Your task to perform on an android device: Clear the shopping cart on bestbuy.com. Search for lenovo thinkpad on bestbuy.com, select the first entry, add it to the cart, then select checkout. Image 0: 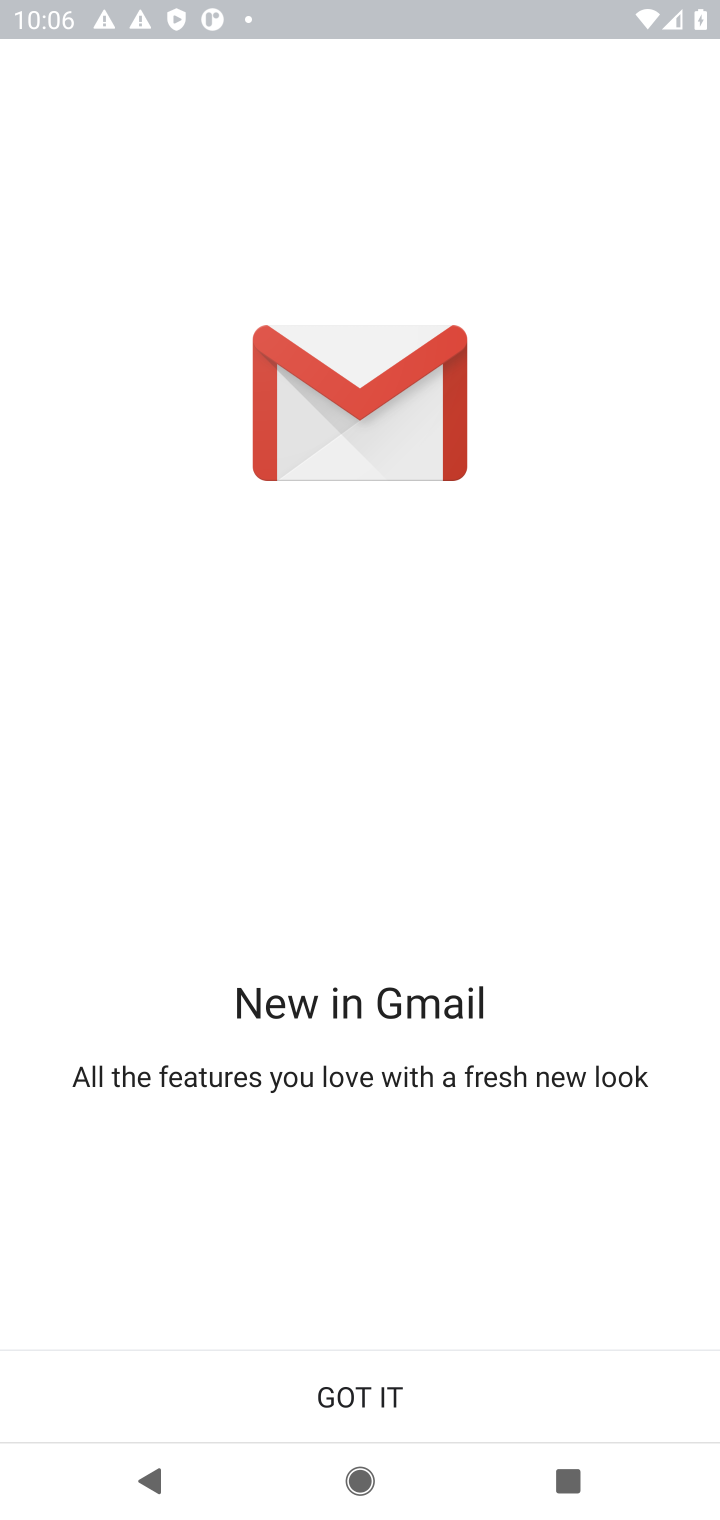
Step 0: press home button
Your task to perform on an android device: Clear the shopping cart on bestbuy.com. Search for lenovo thinkpad on bestbuy.com, select the first entry, add it to the cart, then select checkout. Image 1: 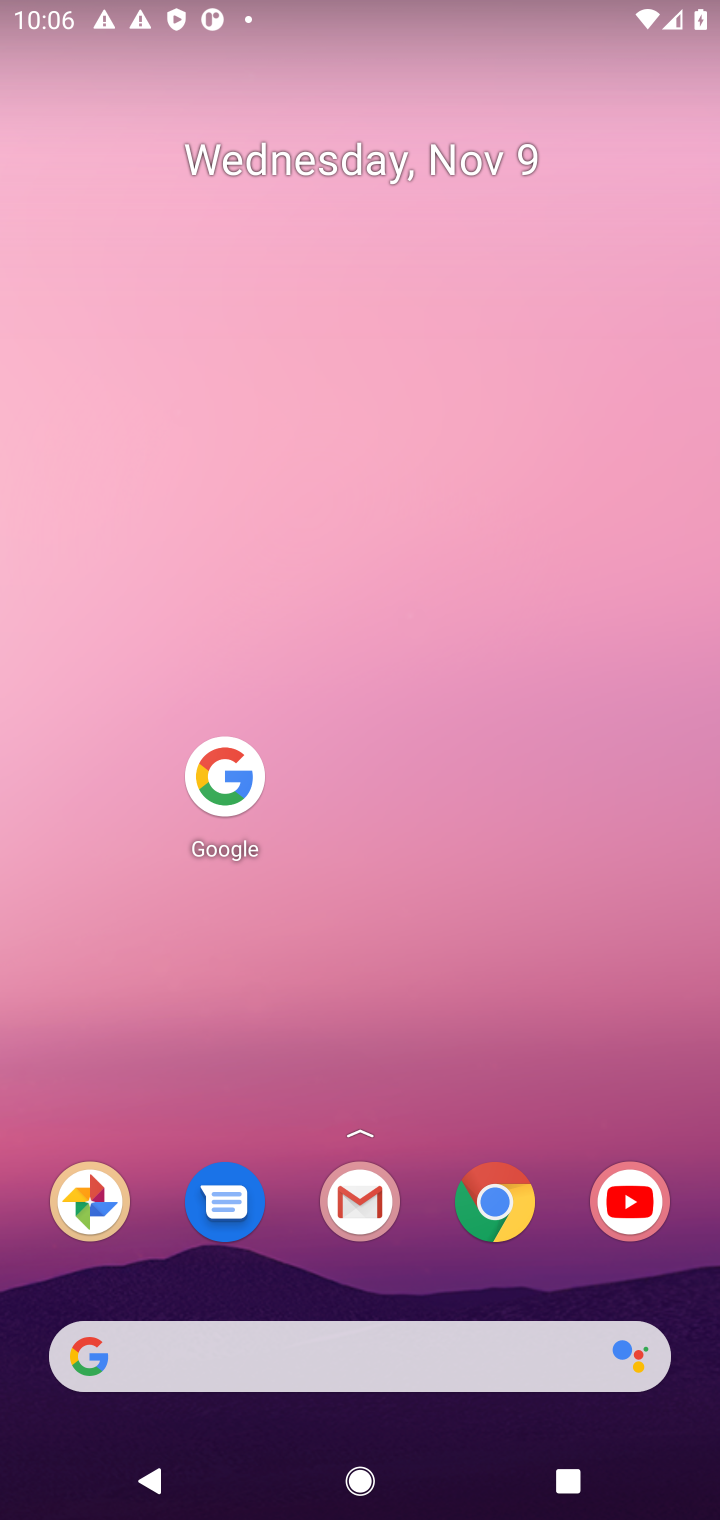
Step 1: click (231, 783)
Your task to perform on an android device: Clear the shopping cart on bestbuy.com. Search for lenovo thinkpad on bestbuy.com, select the first entry, add it to the cart, then select checkout. Image 2: 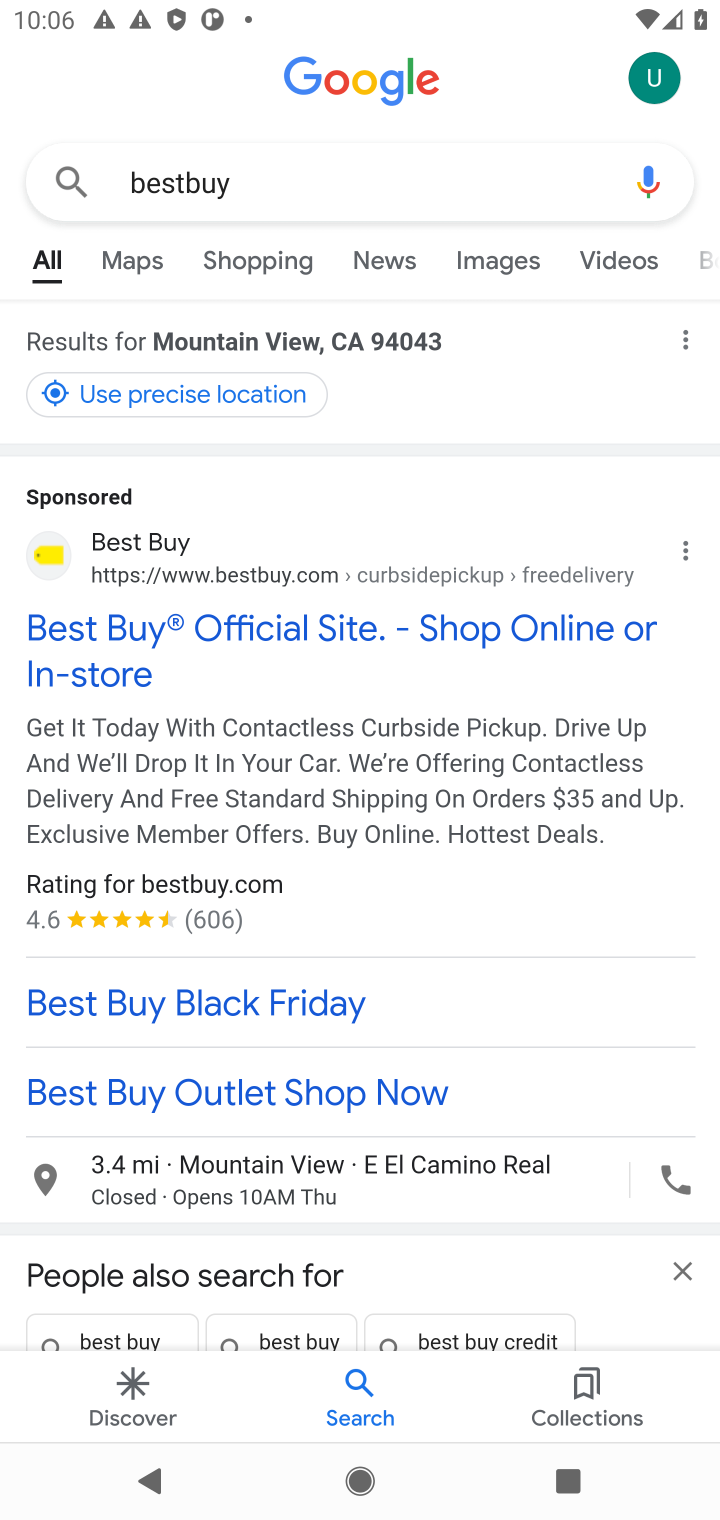
Step 2: click (298, 189)
Your task to perform on an android device: Clear the shopping cart on bestbuy.com. Search for lenovo thinkpad on bestbuy.com, select the first entry, add it to the cart, then select checkout. Image 3: 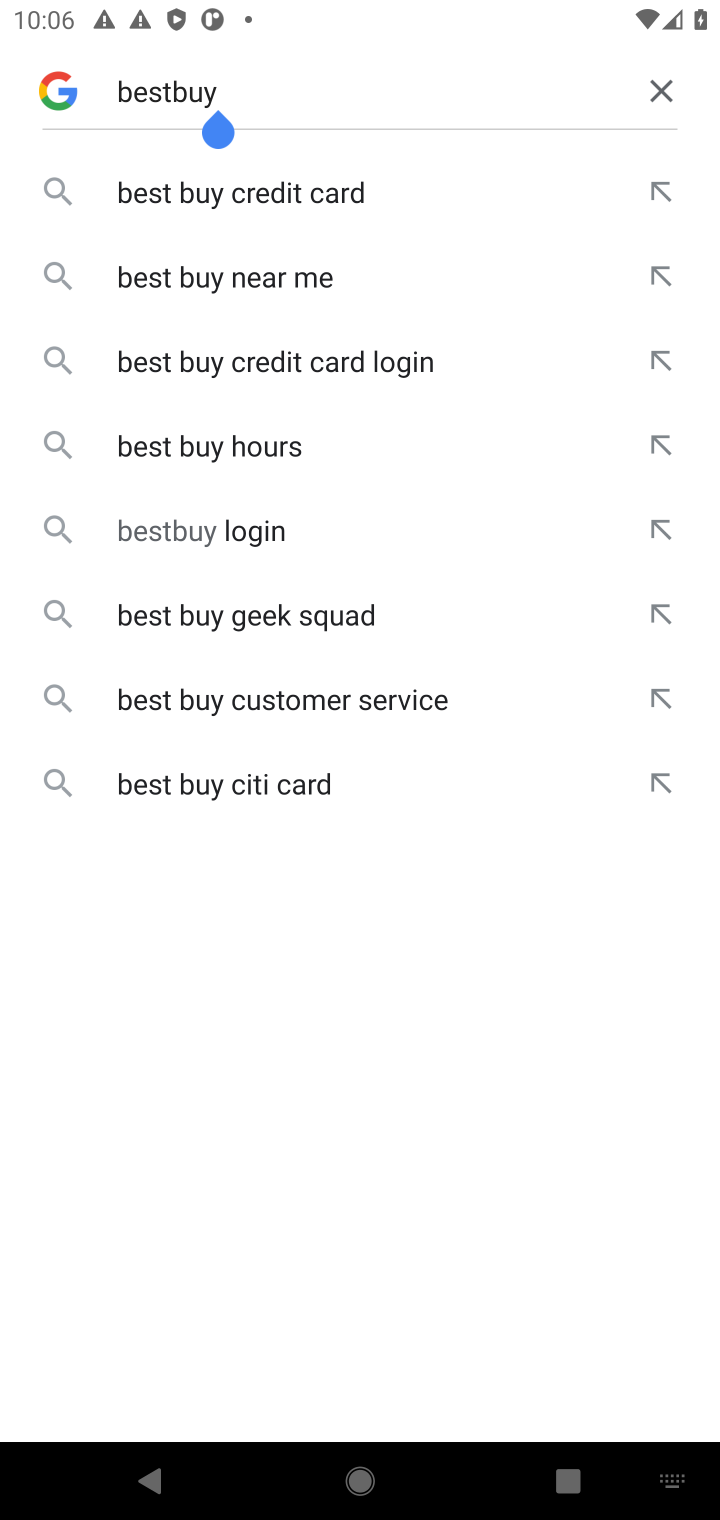
Step 3: click (657, 79)
Your task to perform on an android device: Clear the shopping cart on bestbuy.com. Search for lenovo thinkpad on bestbuy.com, select the first entry, add it to the cart, then select checkout. Image 4: 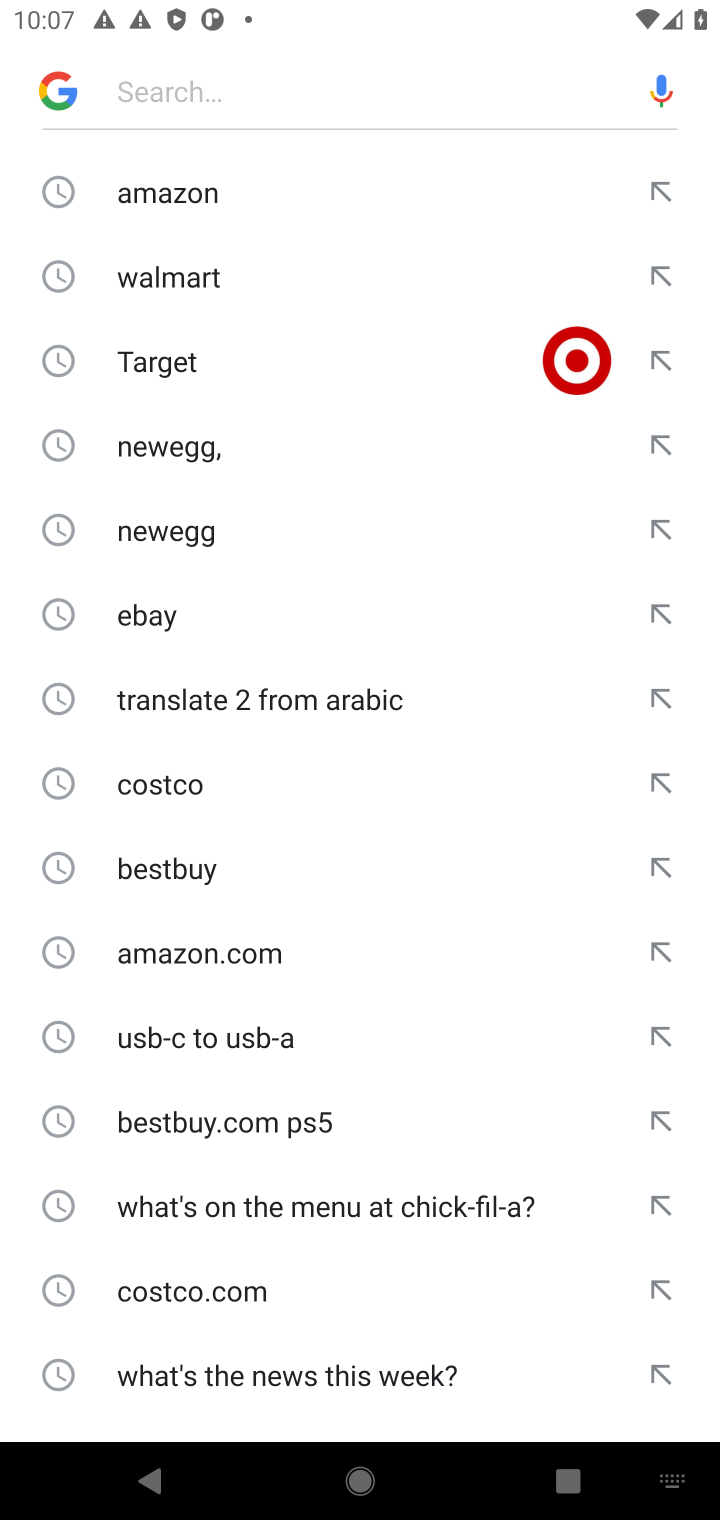
Step 4: click (155, 861)
Your task to perform on an android device: Clear the shopping cart on bestbuy.com. Search for lenovo thinkpad on bestbuy.com, select the first entry, add it to the cart, then select checkout. Image 5: 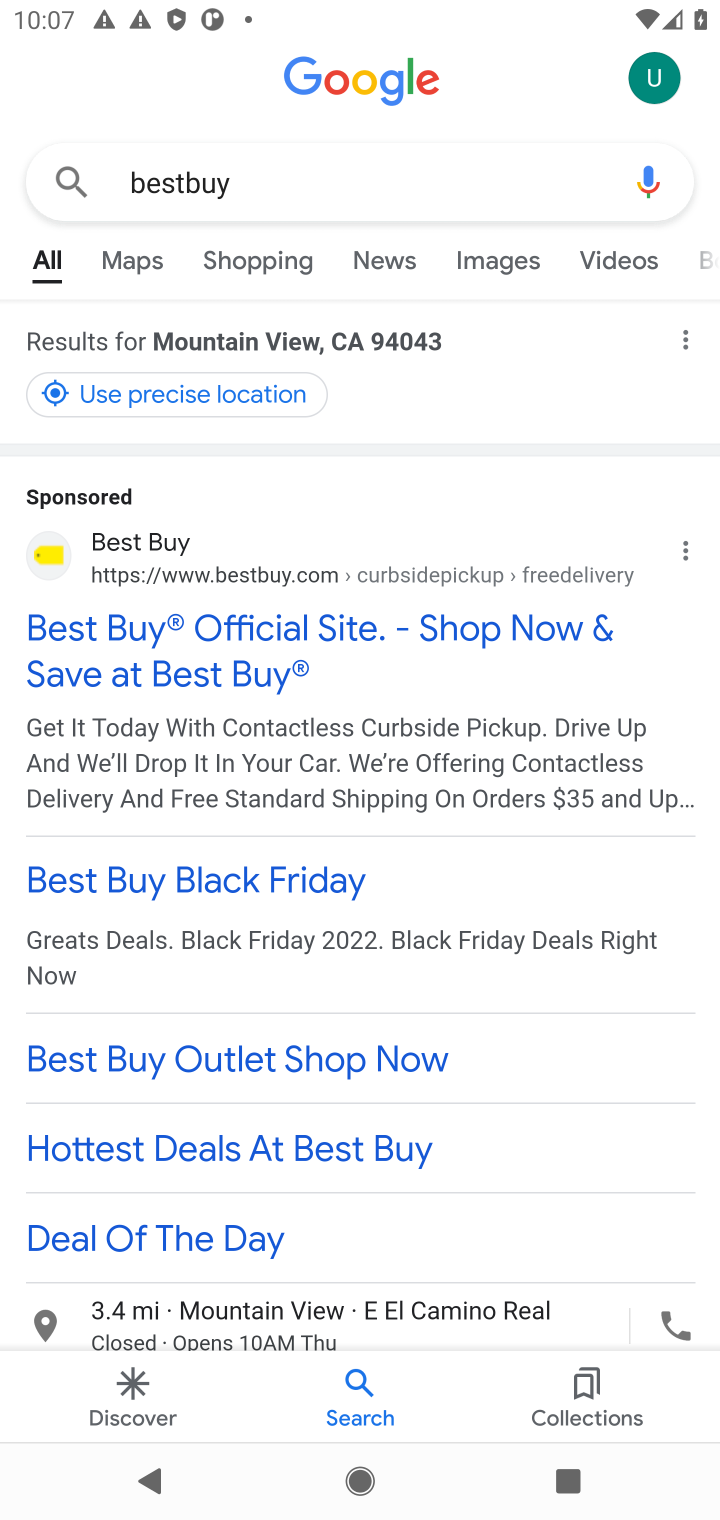
Step 5: click (284, 624)
Your task to perform on an android device: Clear the shopping cart on bestbuy.com. Search for lenovo thinkpad on bestbuy.com, select the first entry, add it to the cart, then select checkout. Image 6: 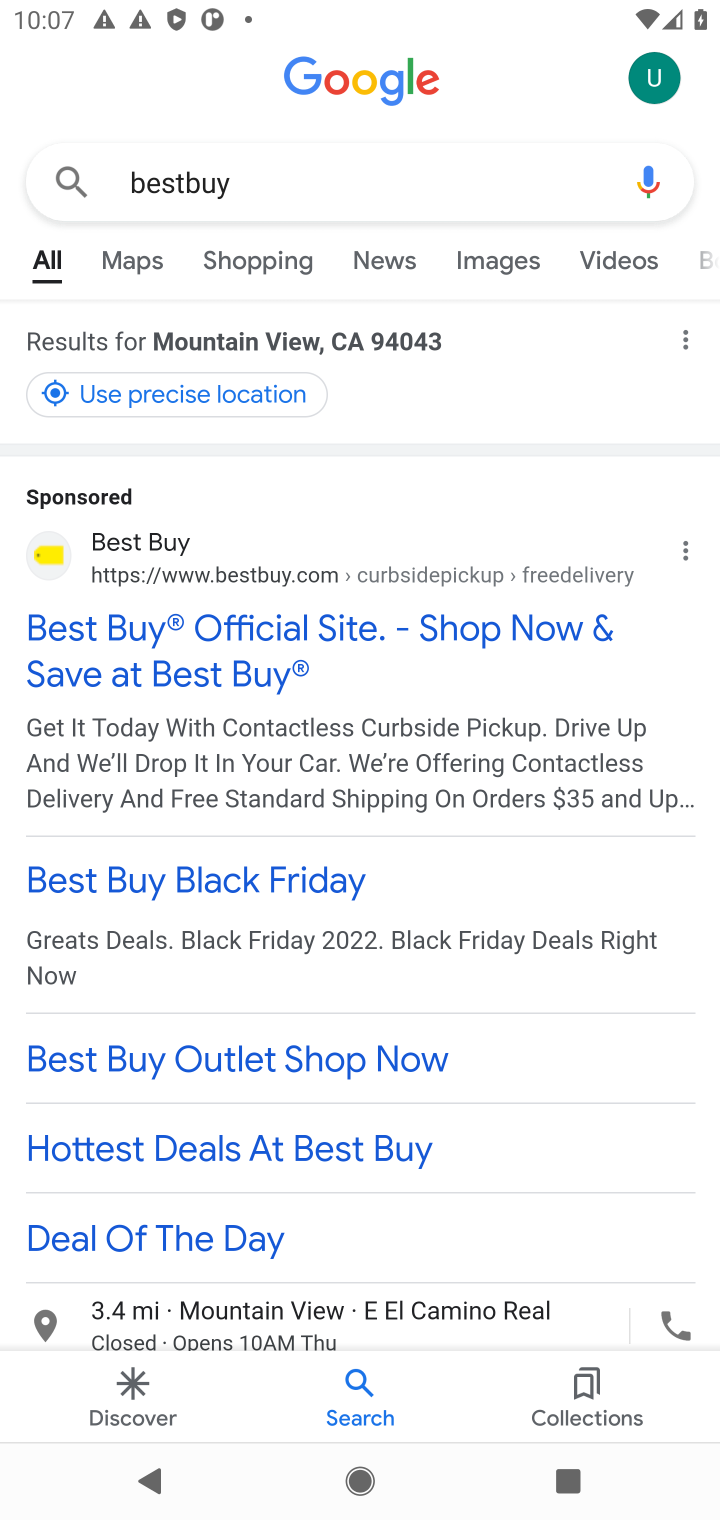
Step 6: click (237, 635)
Your task to perform on an android device: Clear the shopping cart on bestbuy.com. Search for lenovo thinkpad on bestbuy.com, select the first entry, add it to the cart, then select checkout. Image 7: 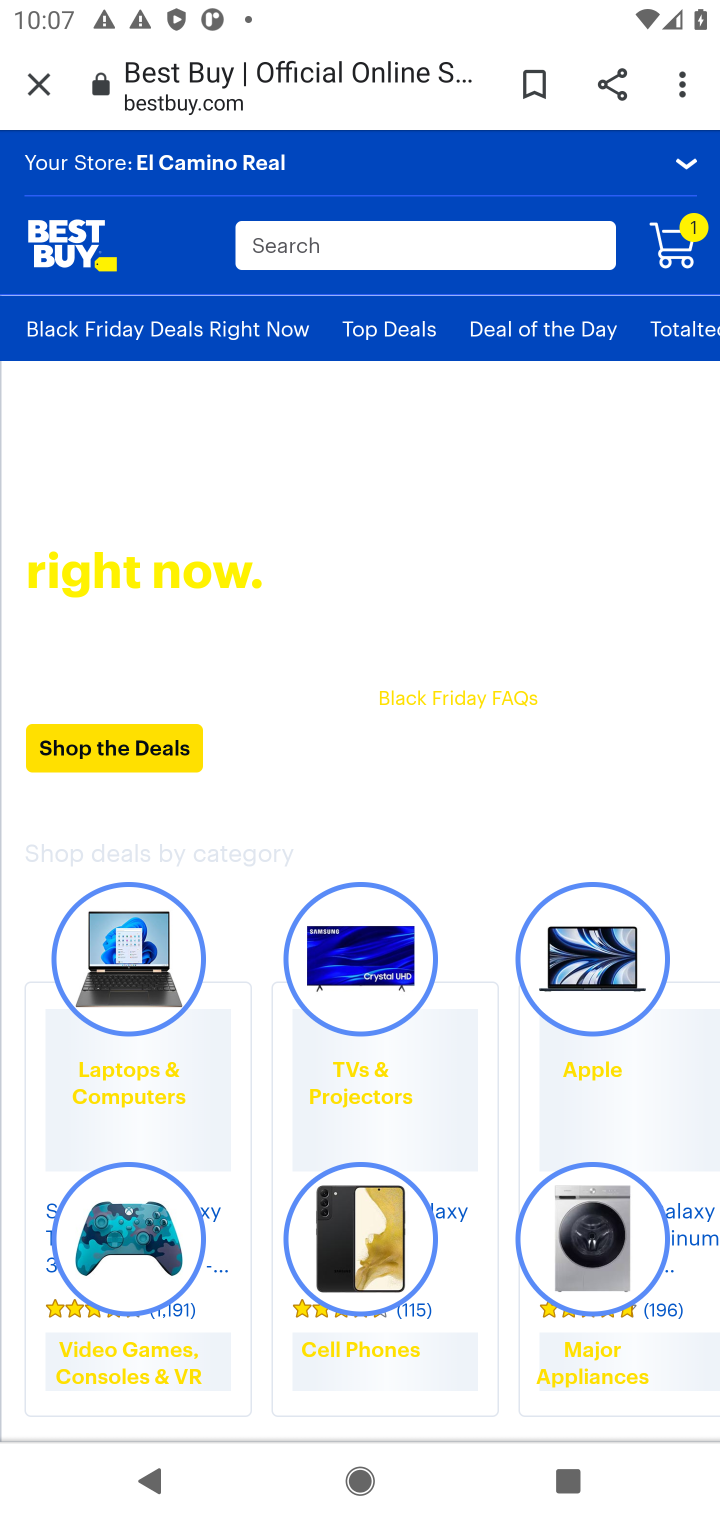
Step 7: click (678, 242)
Your task to perform on an android device: Clear the shopping cart on bestbuy.com. Search for lenovo thinkpad on bestbuy.com, select the first entry, add it to the cart, then select checkout. Image 8: 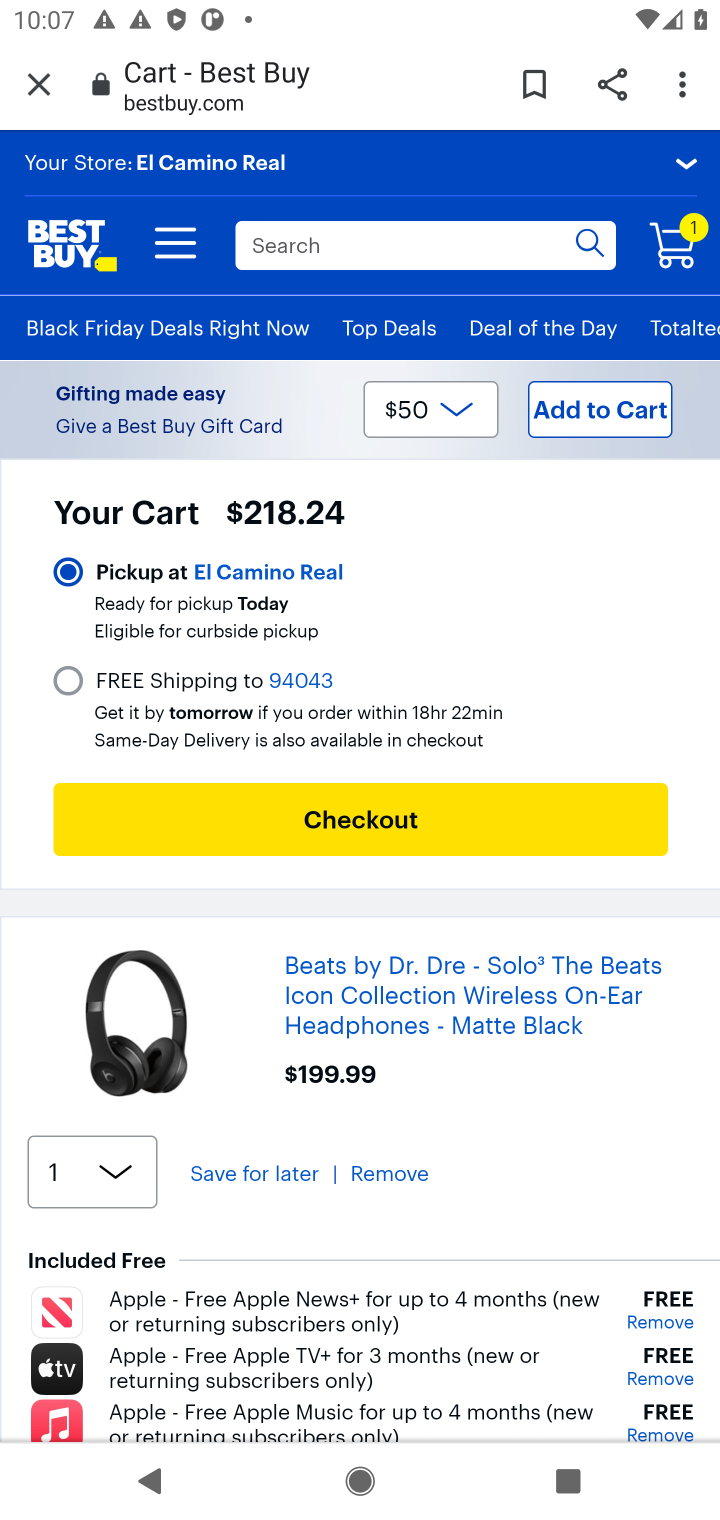
Step 8: click (398, 1165)
Your task to perform on an android device: Clear the shopping cart on bestbuy.com. Search for lenovo thinkpad on bestbuy.com, select the first entry, add it to the cart, then select checkout. Image 9: 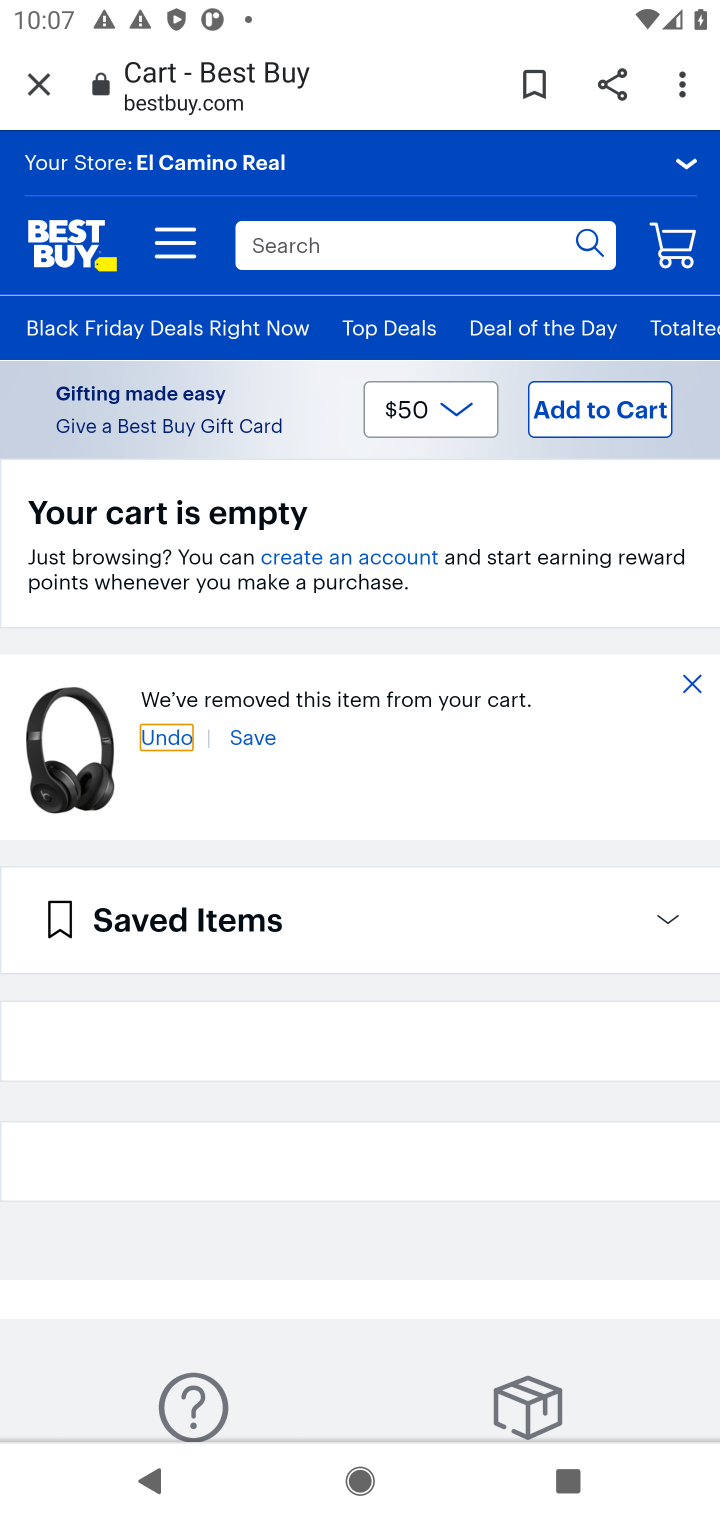
Step 9: click (384, 227)
Your task to perform on an android device: Clear the shopping cart on bestbuy.com. Search for lenovo thinkpad on bestbuy.com, select the first entry, add it to the cart, then select checkout. Image 10: 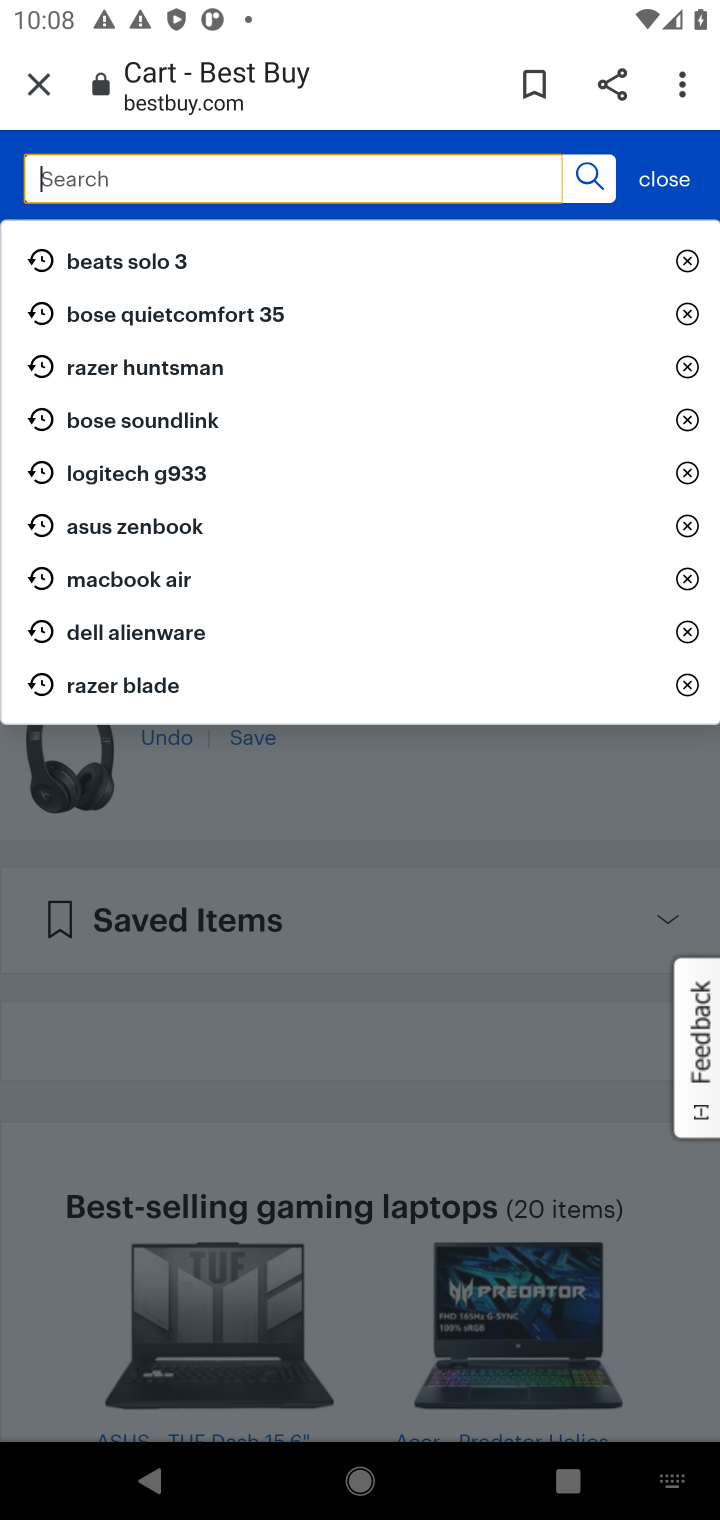
Step 10: type "lenovo thinkpad "
Your task to perform on an android device: Clear the shopping cart on bestbuy.com. Search for lenovo thinkpad on bestbuy.com, select the first entry, add it to the cart, then select checkout. Image 11: 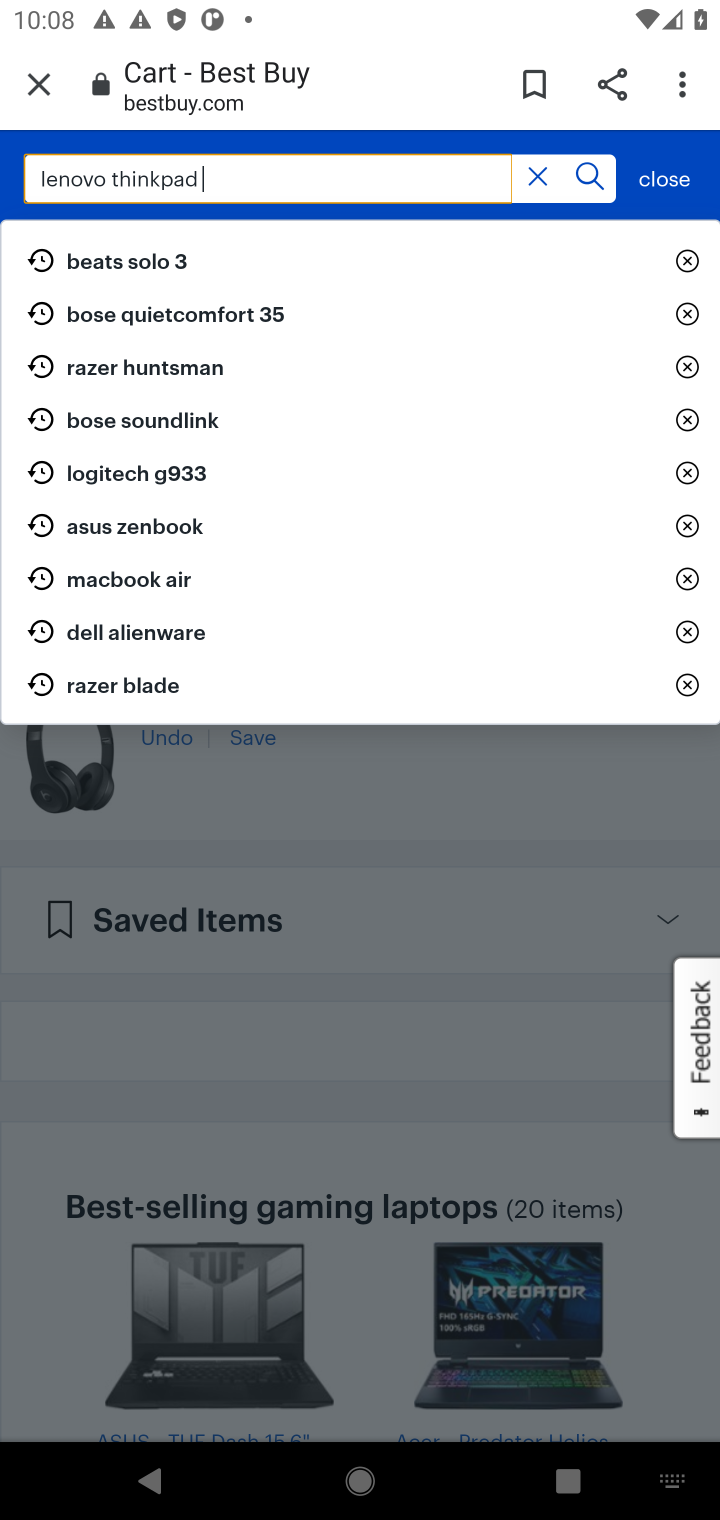
Step 11: press enter
Your task to perform on an android device: Clear the shopping cart on bestbuy.com. Search for lenovo thinkpad on bestbuy.com, select the first entry, add it to the cart, then select checkout. Image 12: 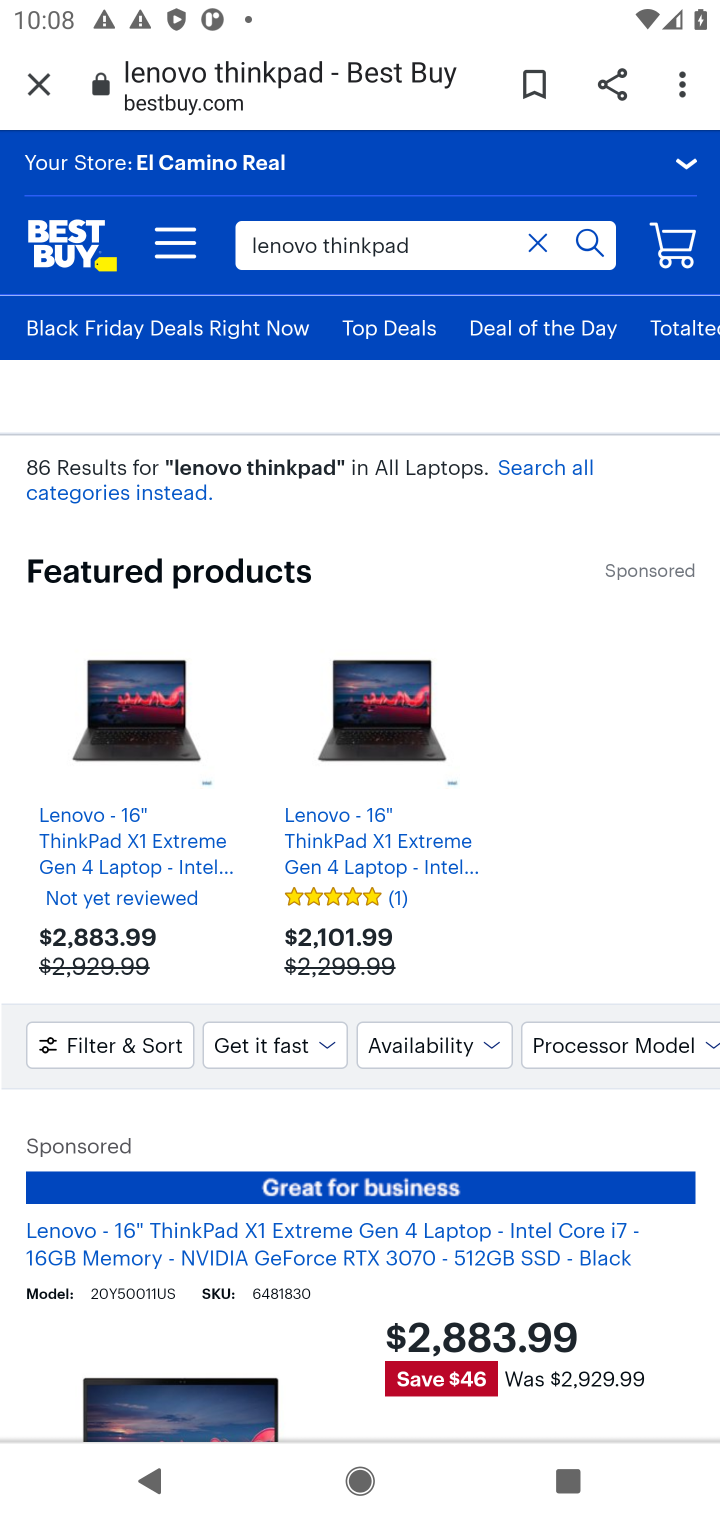
Step 12: drag from (222, 1152) to (484, 469)
Your task to perform on an android device: Clear the shopping cart on bestbuy.com. Search for lenovo thinkpad on bestbuy.com, select the first entry, add it to the cart, then select checkout. Image 13: 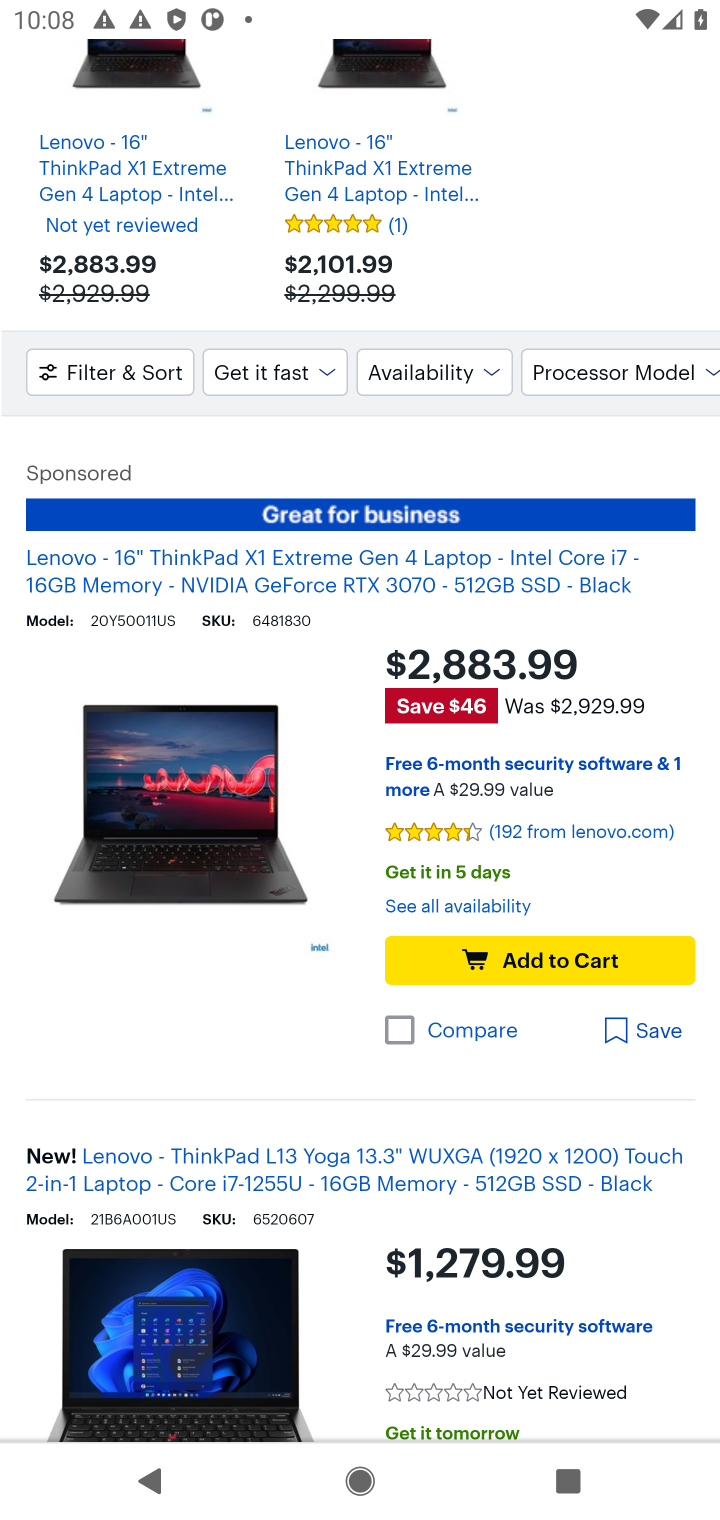
Step 13: click (527, 957)
Your task to perform on an android device: Clear the shopping cart on bestbuy.com. Search for lenovo thinkpad on bestbuy.com, select the first entry, add it to the cart, then select checkout. Image 14: 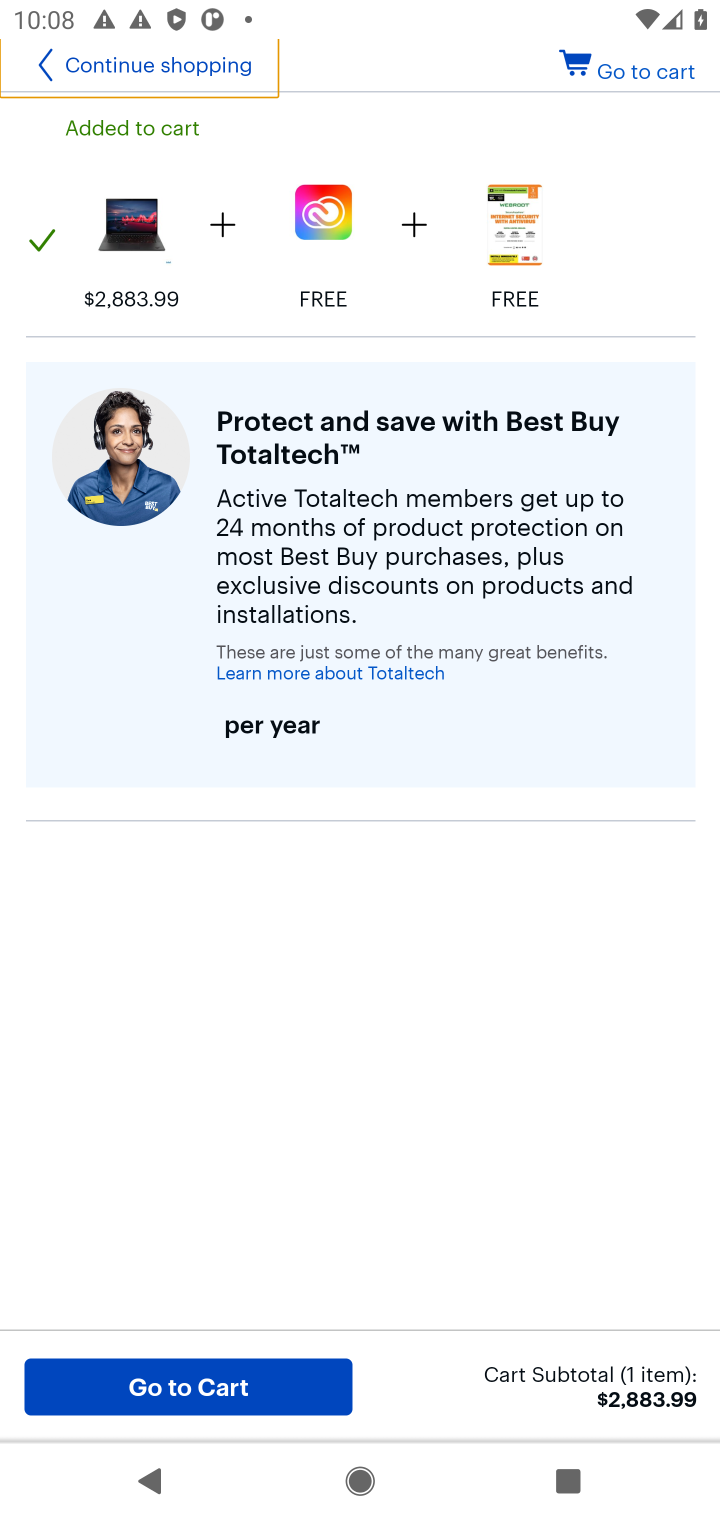
Step 14: click (658, 63)
Your task to perform on an android device: Clear the shopping cart on bestbuy.com. Search for lenovo thinkpad on bestbuy.com, select the first entry, add it to the cart, then select checkout. Image 15: 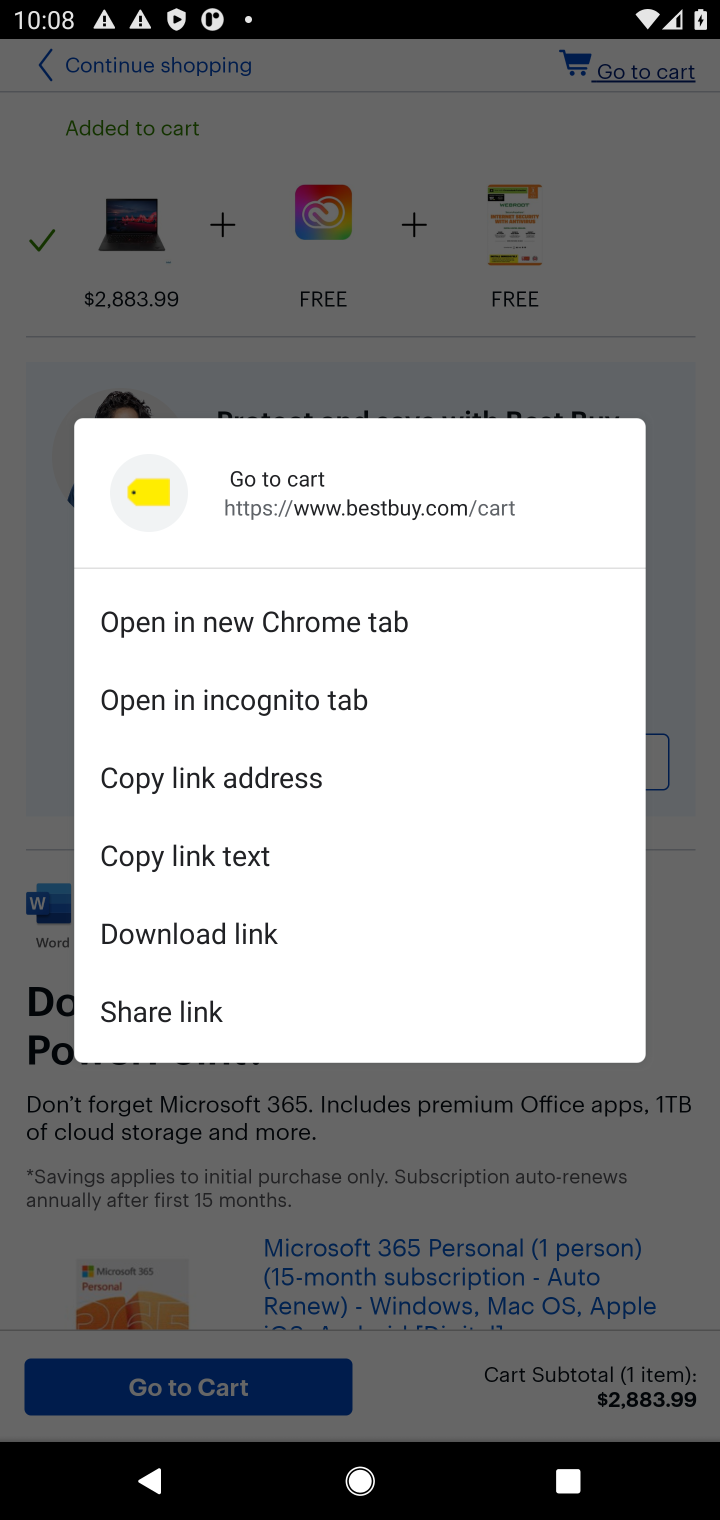
Step 15: click (653, 71)
Your task to perform on an android device: Clear the shopping cart on bestbuy.com. Search for lenovo thinkpad on bestbuy.com, select the first entry, add it to the cart, then select checkout. Image 16: 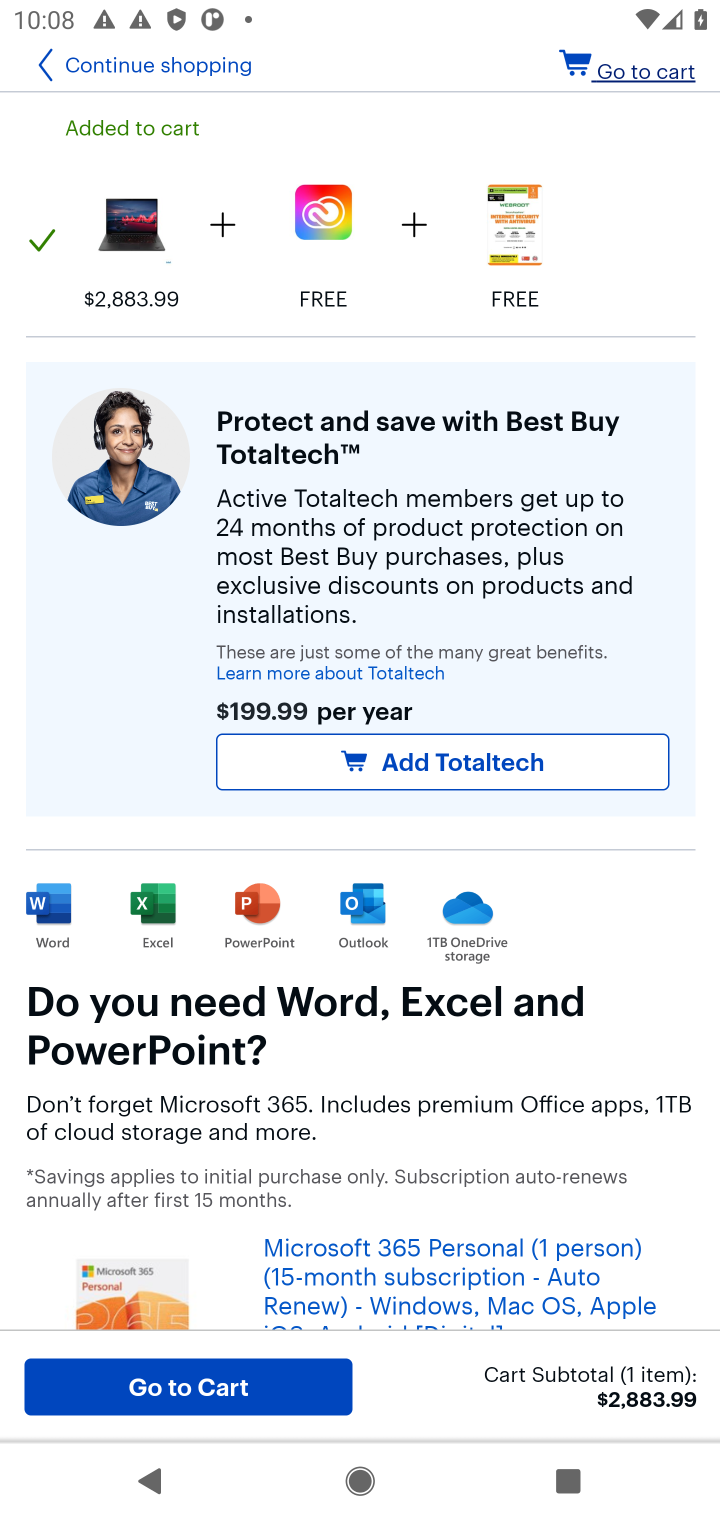
Step 16: click (653, 72)
Your task to perform on an android device: Clear the shopping cart on bestbuy.com. Search for lenovo thinkpad on bestbuy.com, select the first entry, add it to the cart, then select checkout. Image 17: 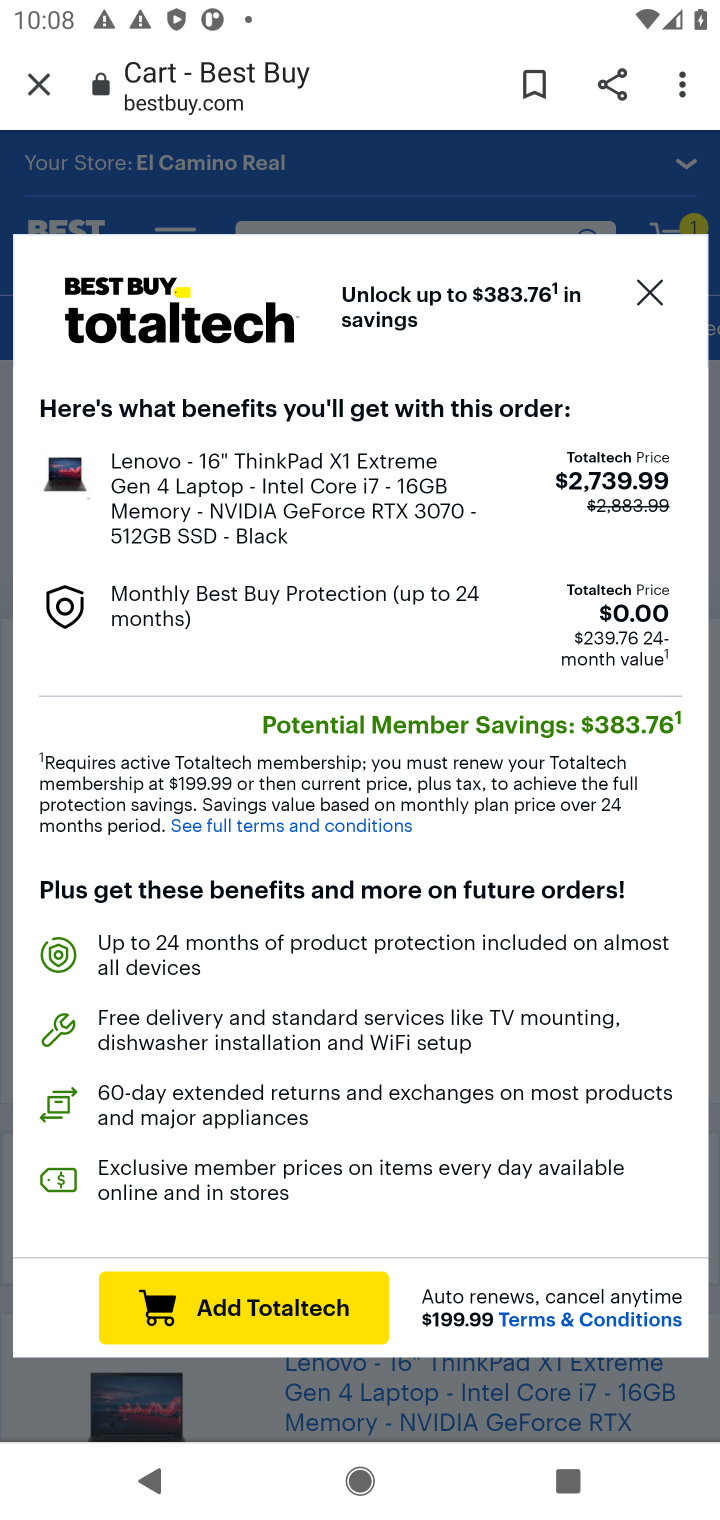
Step 17: click (651, 282)
Your task to perform on an android device: Clear the shopping cart on bestbuy.com. Search for lenovo thinkpad on bestbuy.com, select the first entry, add it to the cart, then select checkout. Image 18: 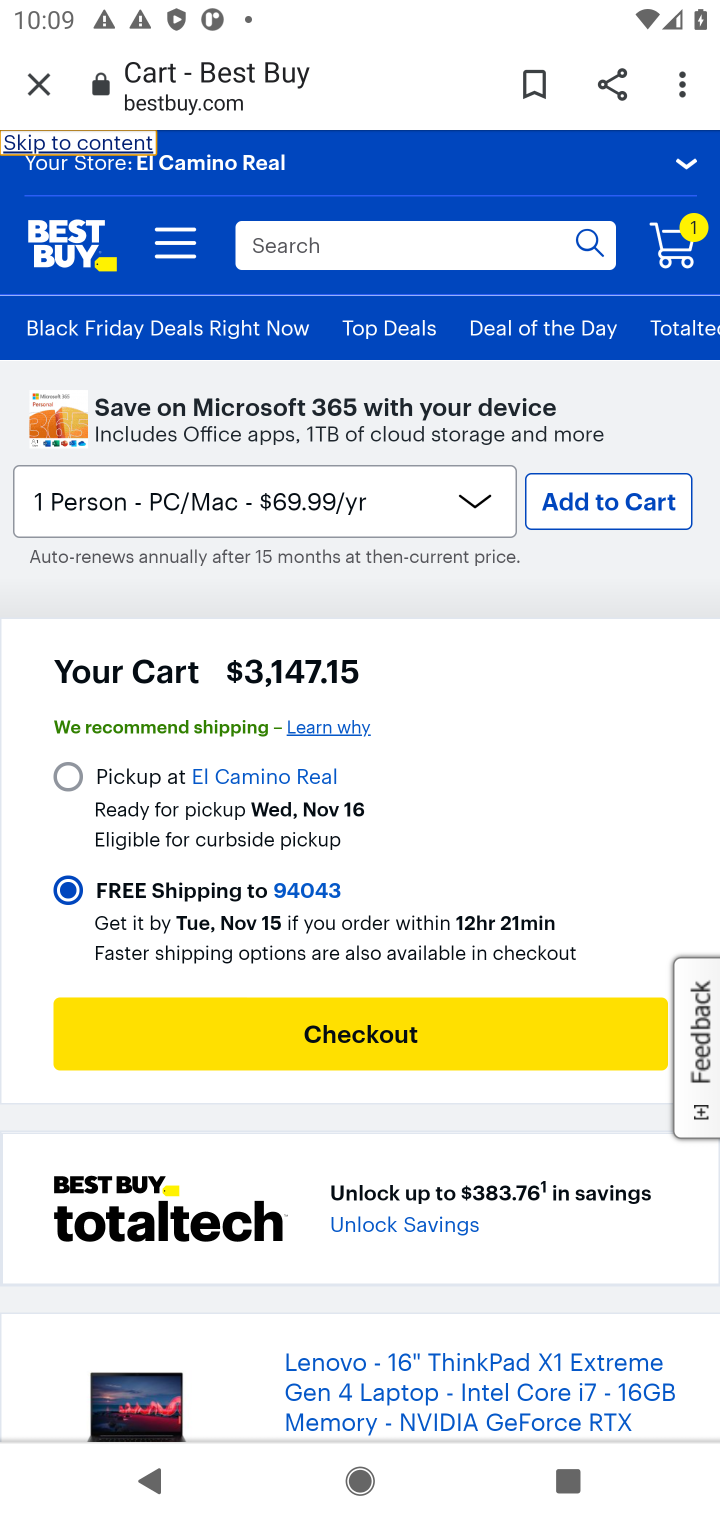
Step 18: click (354, 1032)
Your task to perform on an android device: Clear the shopping cart on bestbuy.com. Search for lenovo thinkpad on bestbuy.com, select the first entry, add it to the cart, then select checkout. Image 19: 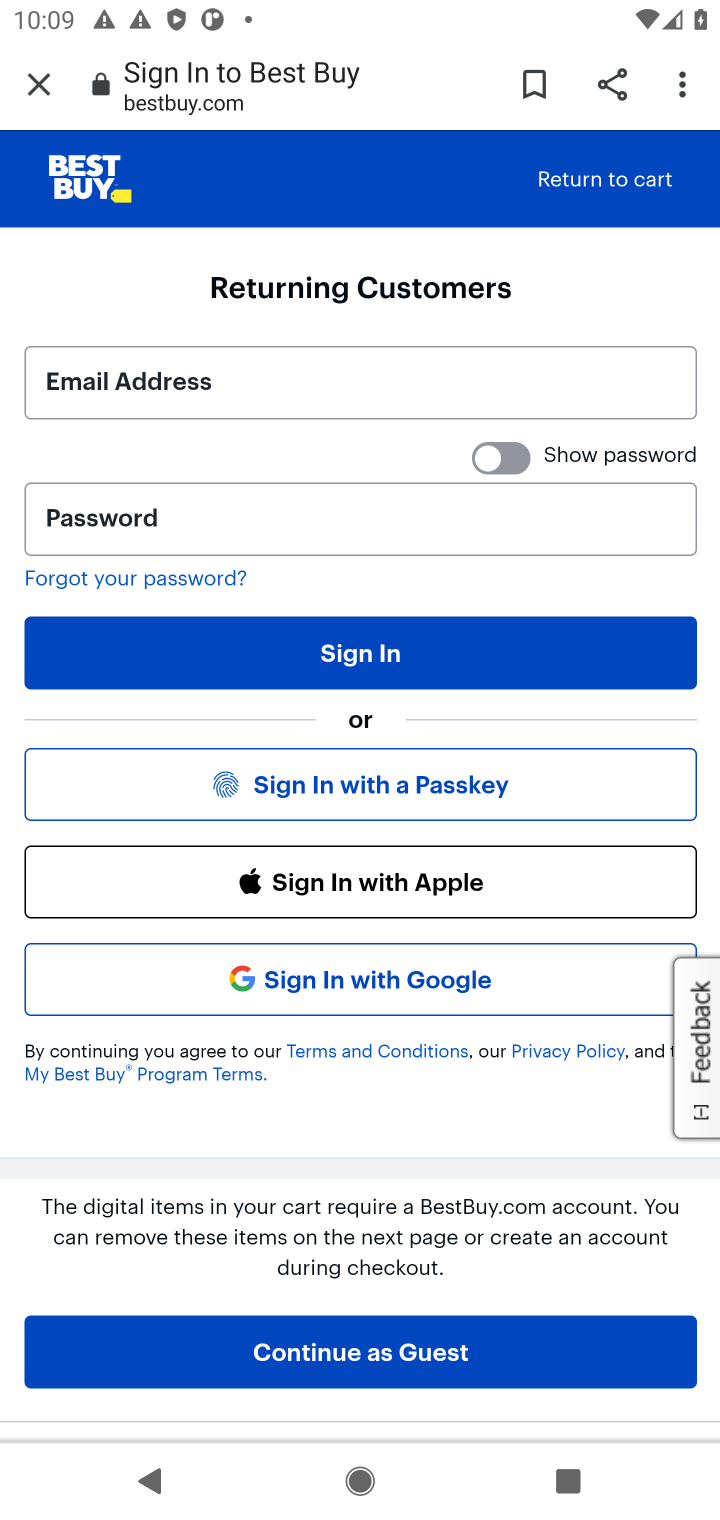
Step 19: task complete